Your task to perform on an android device: check battery use Image 0: 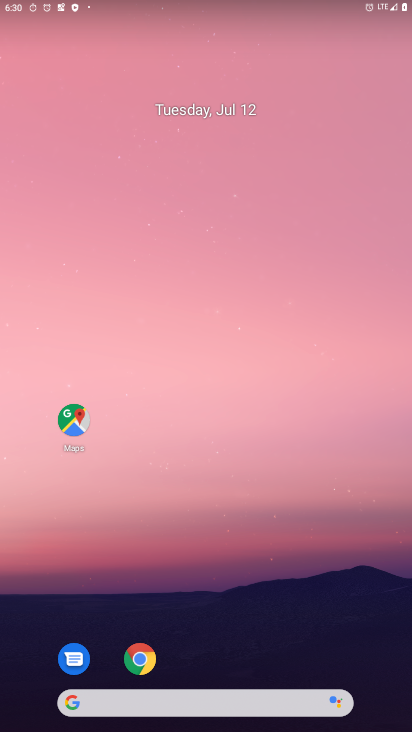
Step 0: drag from (212, 52) to (225, 1)
Your task to perform on an android device: check battery use Image 1: 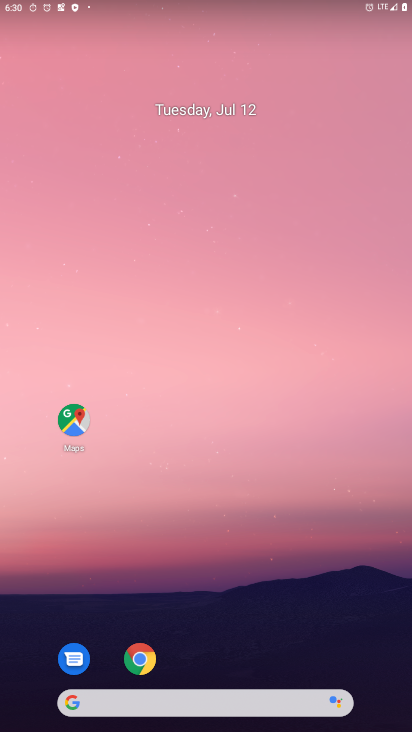
Step 1: drag from (205, 256) to (213, 71)
Your task to perform on an android device: check battery use Image 2: 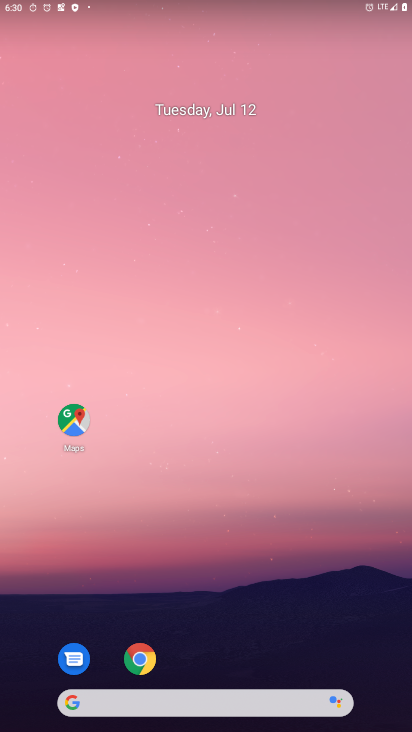
Step 2: drag from (202, 307) to (225, 109)
Your task to perform on an android device: check battery use Image 3: 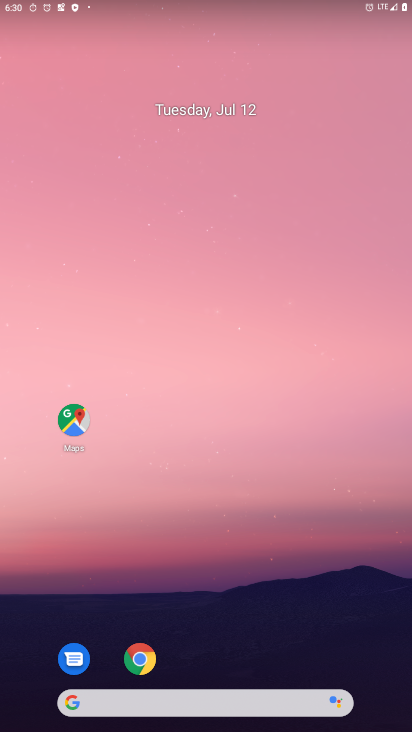
Step 3: drag from (194, 261) to (204, 37)
Your task to perform on an android device: check battery use Image 4: 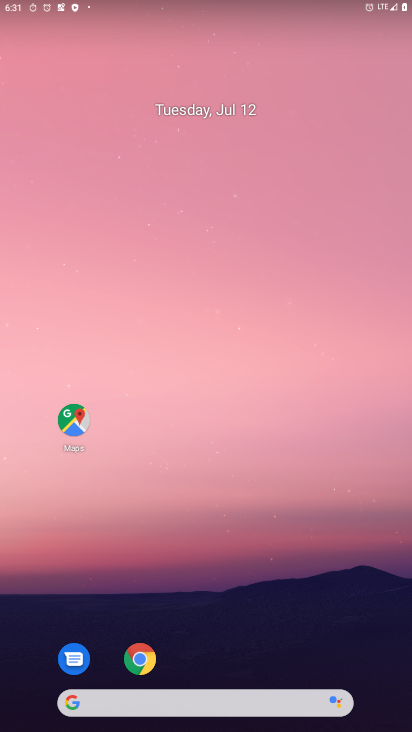
Step 4: drag from (204, 632) to (244, 37)
Your task to perform on an android device: check battery use Image 5: 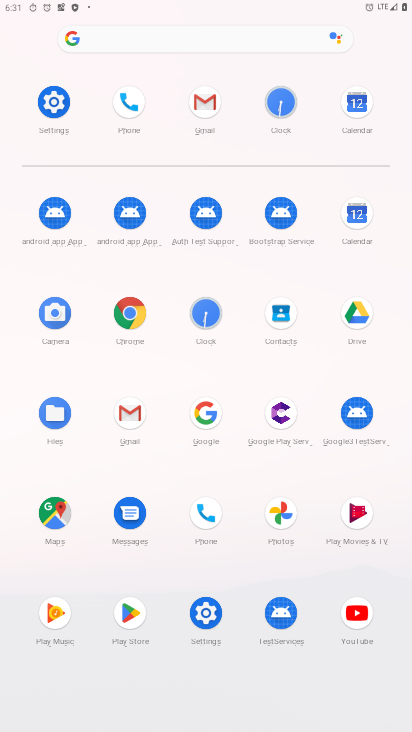
Step 5: click (51, 99)
Your task to perform on an android device: check battery use Image 6: 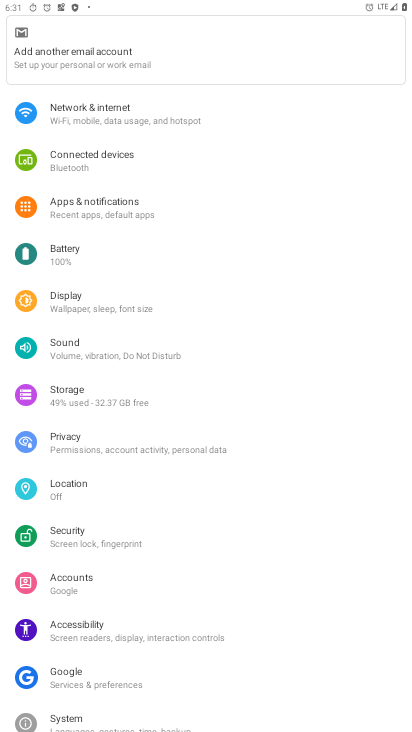
Step 6: drag from (105, 569) to (182, 176)
Your task to perform on an android device: check battery use Image 7: 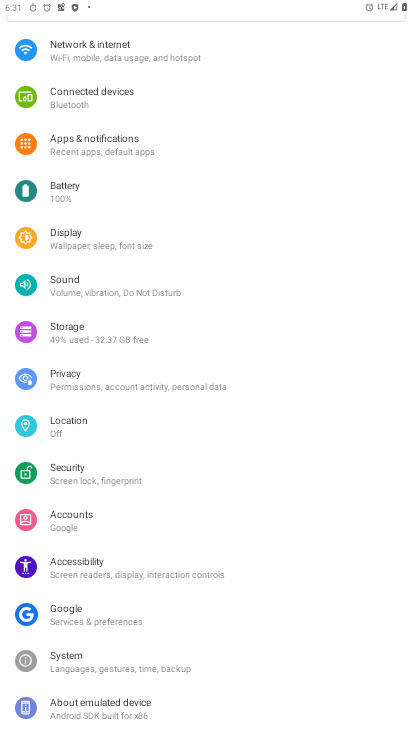
Step 7: click (80, 708)
Your task to perform on an android device: check battery use Image 8: 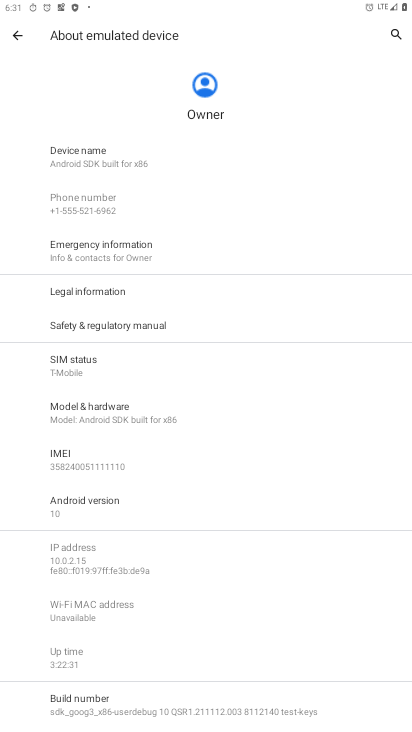
Step 8: press back button
Your task to perform on an android device: check battery use Image 9: 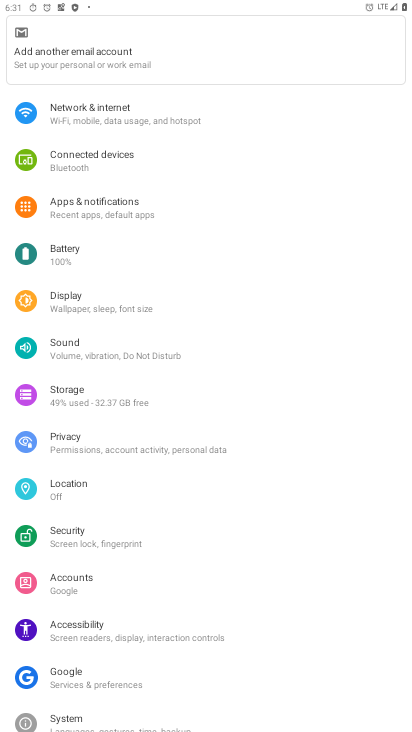
Step 9: click (59, 259)
Your task to perform on an android device: check battery use Image 10: 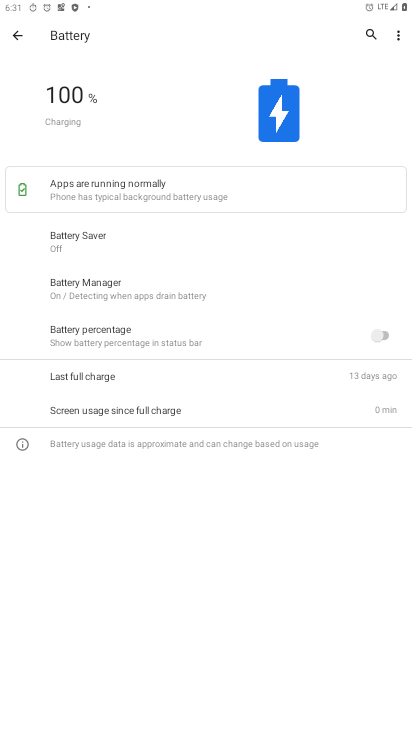
Step 10: task complete